Your task to perform on an android device: turn on the 12-hour format for clock Image 0: 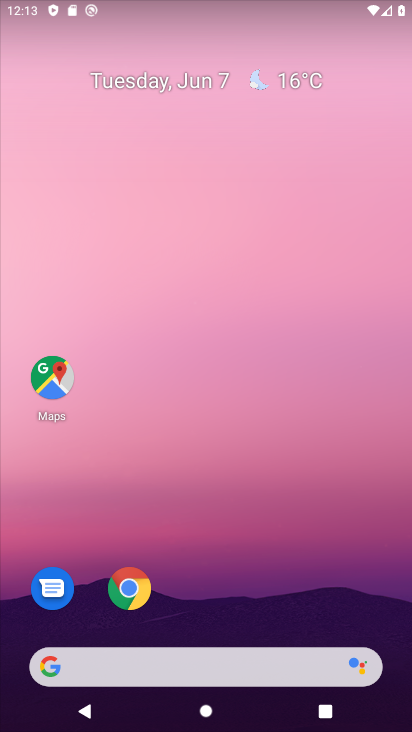
Step 0: drag from (310, 615) to (169, 29)
Your task to perform on an android device: turn on the 12-hour format for clock Image 1: 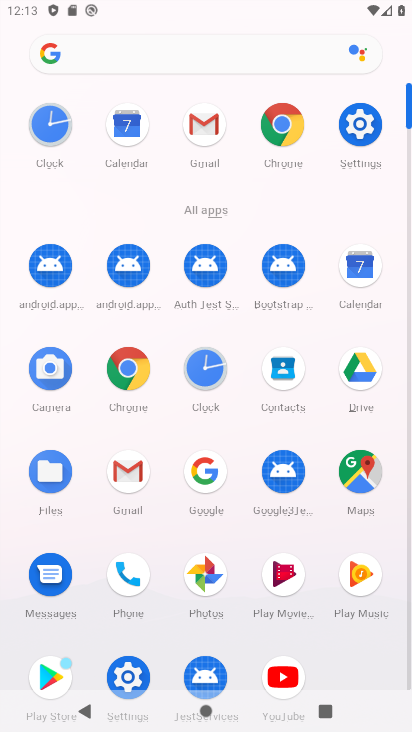
Step 1: click (62, 166)
Your task to perform on an android device: turn on the 12-hour format for clock Image 2: 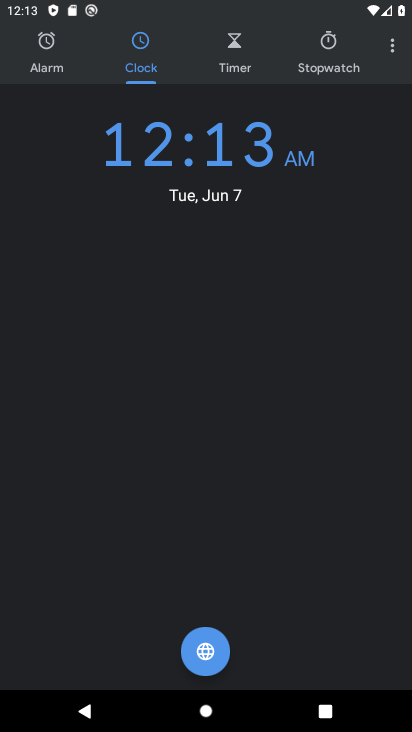
Step 2: task complete